Your task to perform on an android device: What does the iPhone 8 look like? Image 0: 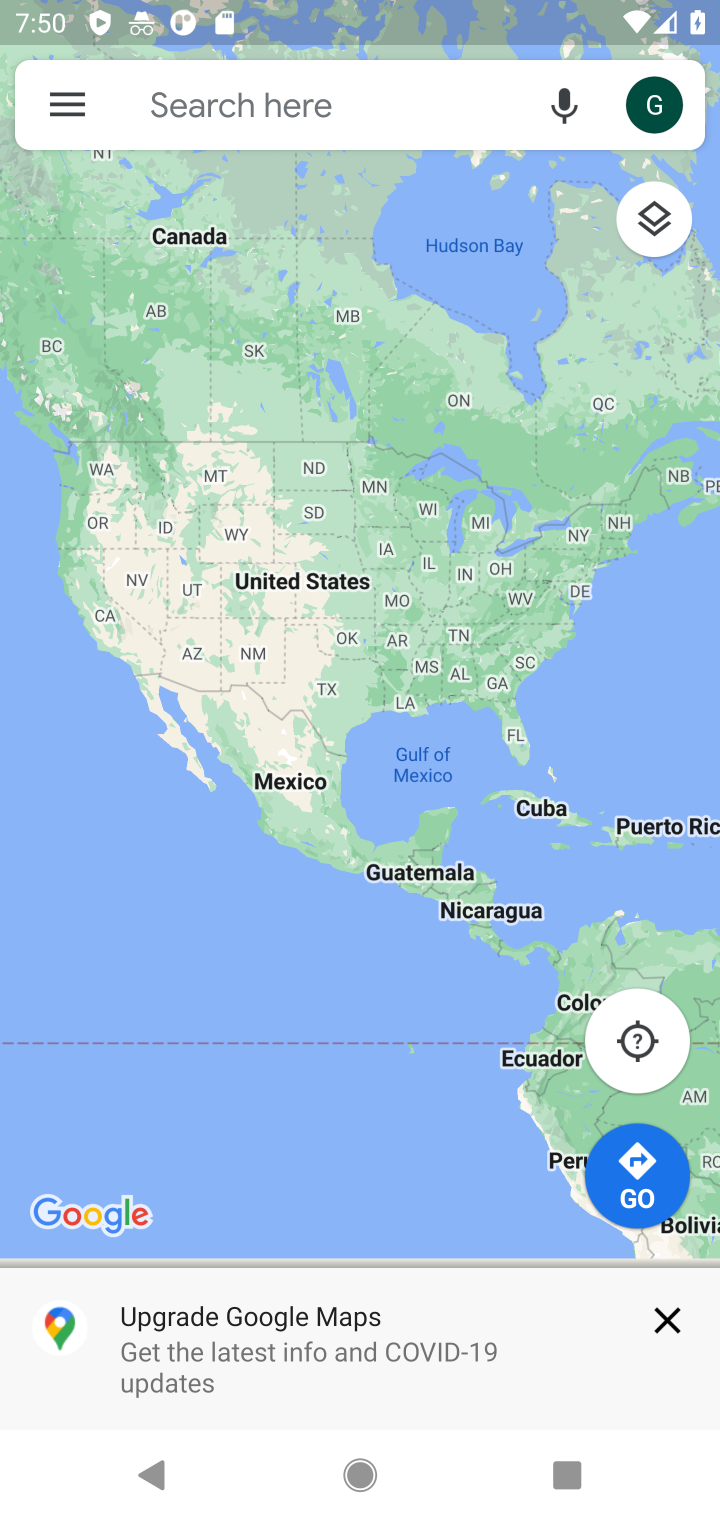
Step 0: press home button
Your task to perform on an android device: What does the iPhone 8 look like? Image 1: 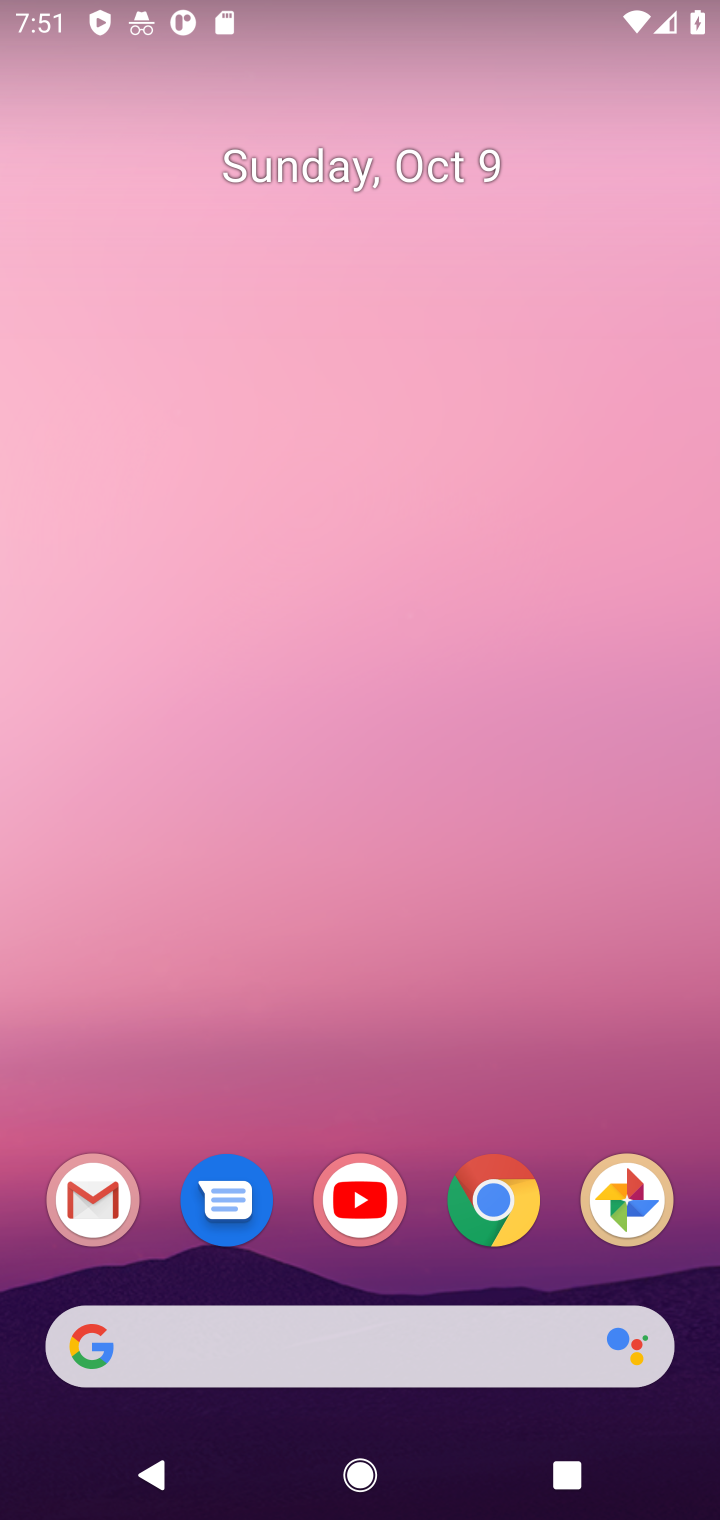
Step 1: click (474, 1209)
Your task to perform on an android device: What does the iPhone 8 look like? Image 2: 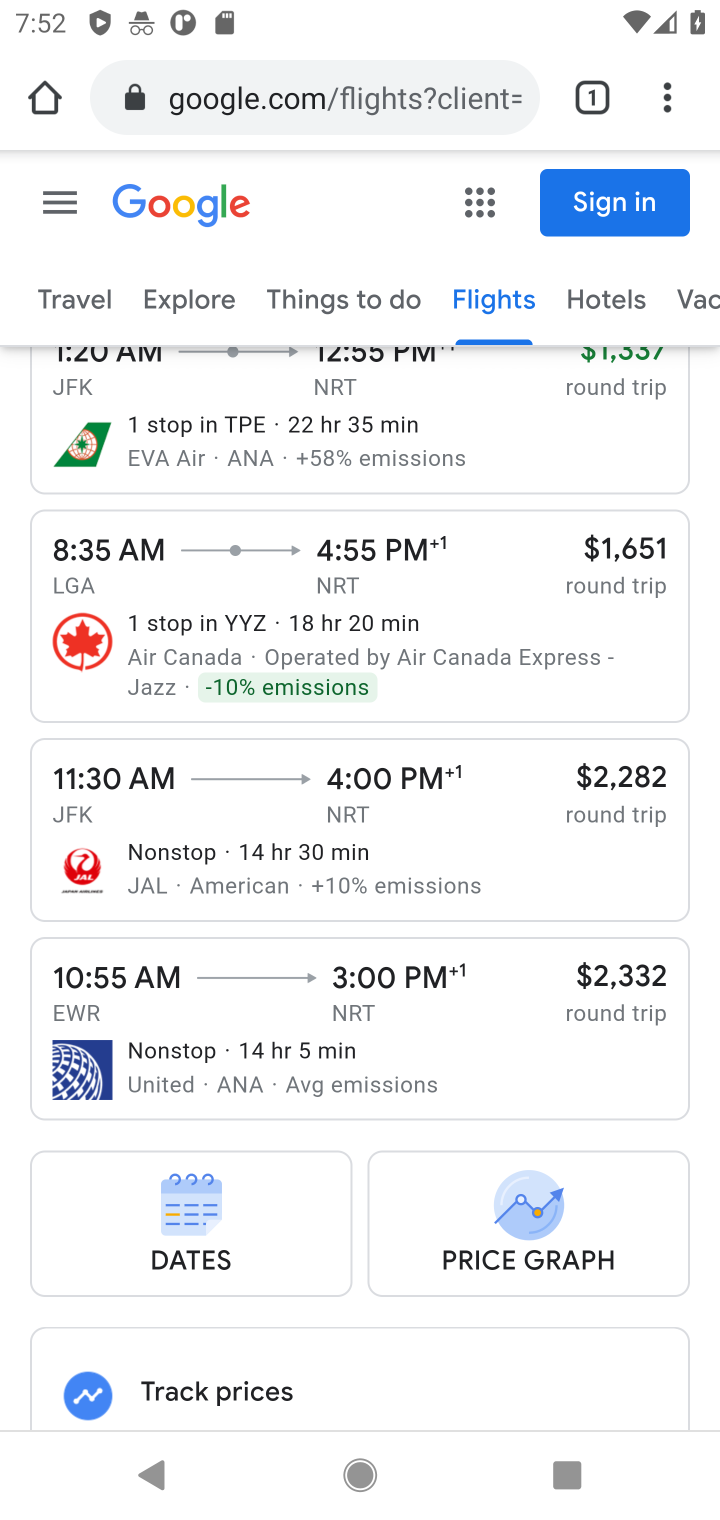
Step 2: task complete